Your task to perform on an android device: Check the weather Image 0: 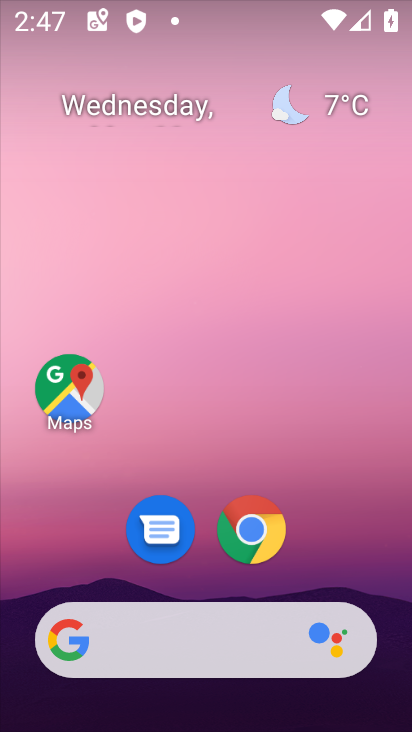
Step 0: press back button
Your task to perform on an android device: Check the weather Image 1: 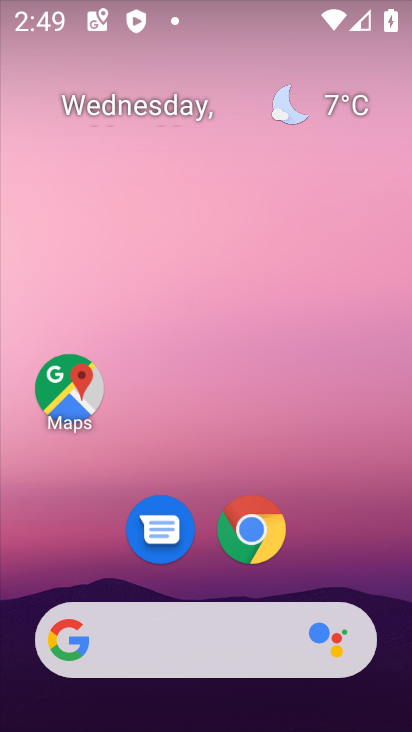
Step 1: click (181, 657)
Your task to perform on an android device: Check the weather Image 2: 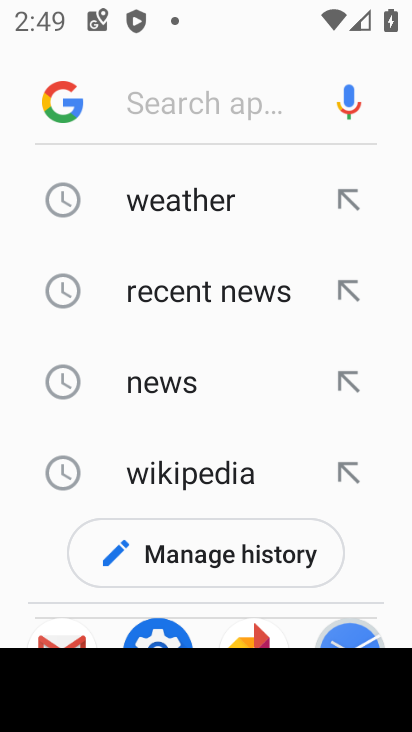
Step 2: click (158, 192)
Your task to perform on an android device: Check the weather Image 3: 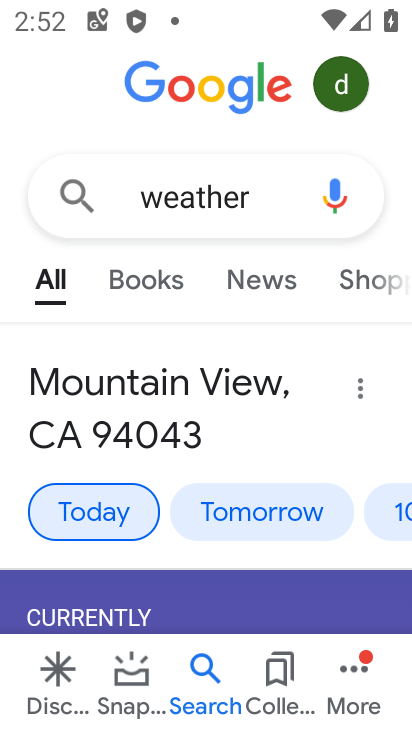
Step 3: task complete